Your task to perform on an android device: create a new album in the google photos Image 0: 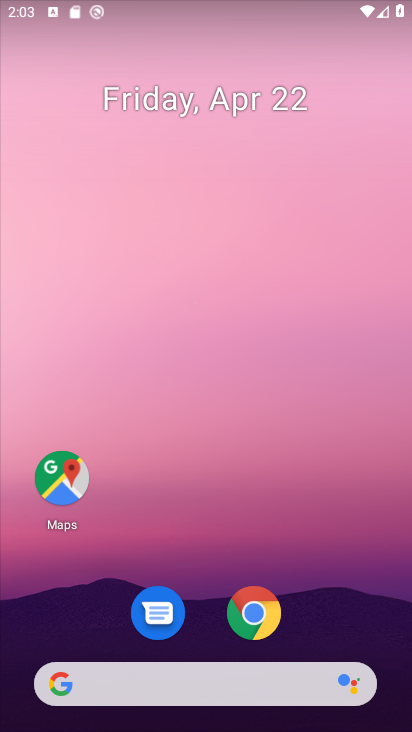
Step 0: drag from (210, 597) to (271, 65)
Your task to perform on an android device: create a new album in the google photos Image 1: 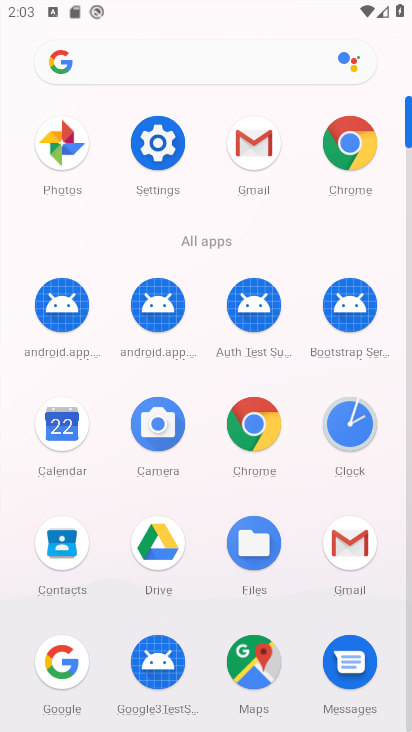
Step 1: drag from (255, 619) to (326, 137)
Your task to perform on an android device: create a new album in the google photos Image 2: 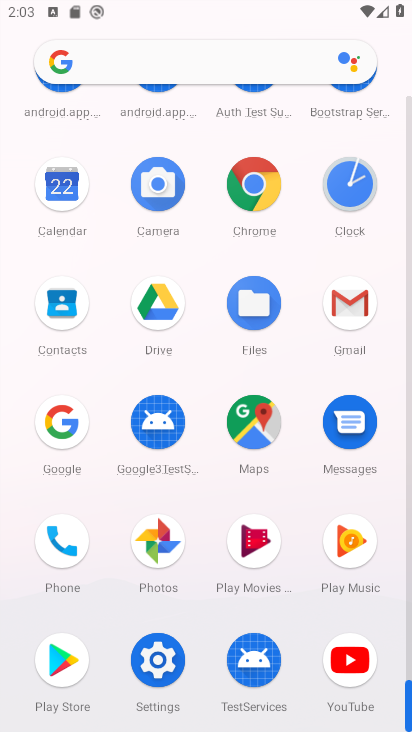
Step 2: click (161, 539)
Your task to perform on an android device: create a new album in the google photos Image 3: 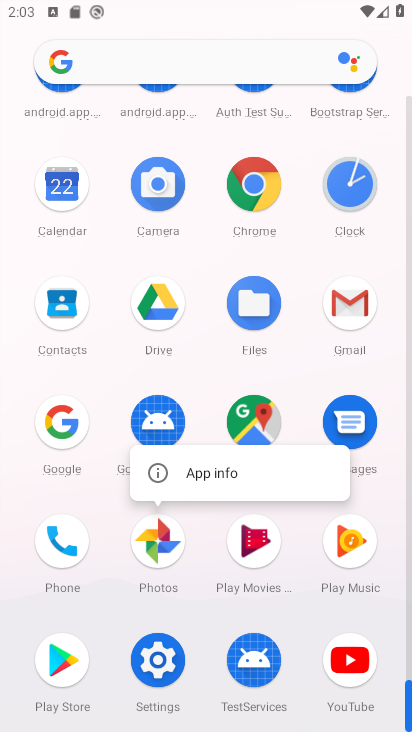
Step 3: click (161, 539)
Your task to perform on an android device: create a new album in the google photos Image 4: 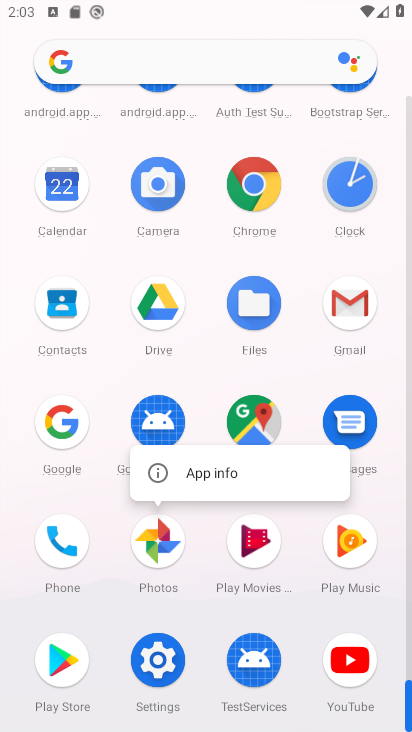
Step 4: click (161, 539)
Your task to perform on an android device: create a new album in the google photos Image 5: 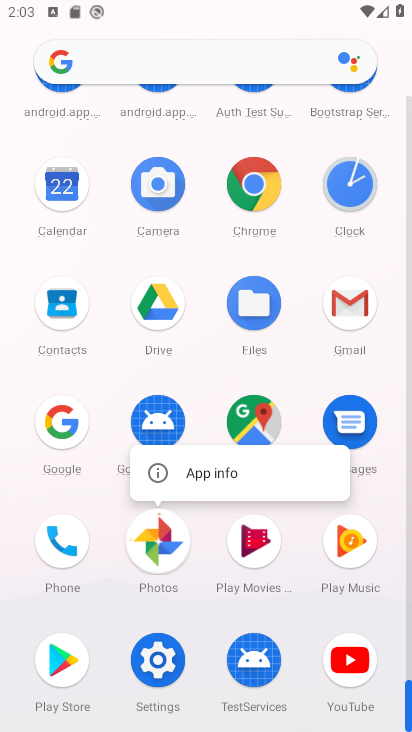
Step 5: click (161, 539)
Your task to perform on an android device: create a new album in the google photos Image 6: 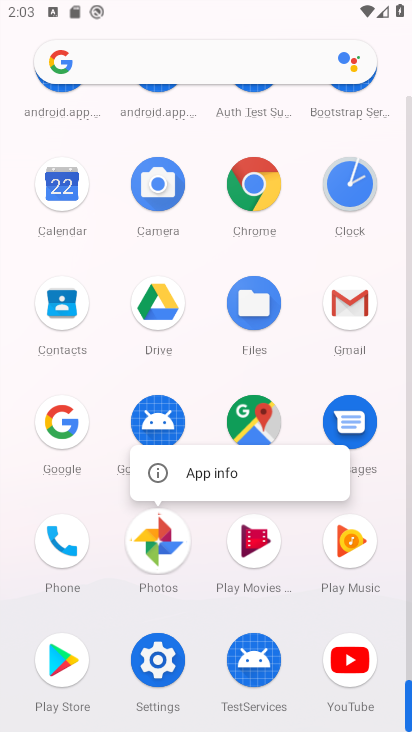
Step 6: click (161, 539)
Your task to perform on an android device: create a new album in the google photos Image 7: 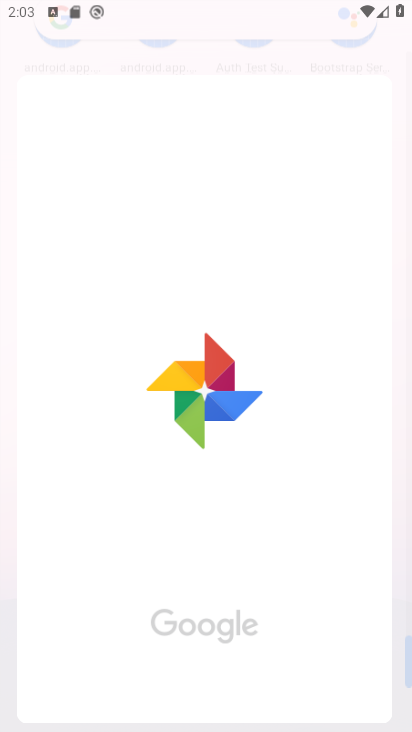
Step 7: click (156, 551)
Your task to perform on an android device: create a new album in the google photos Image 8: 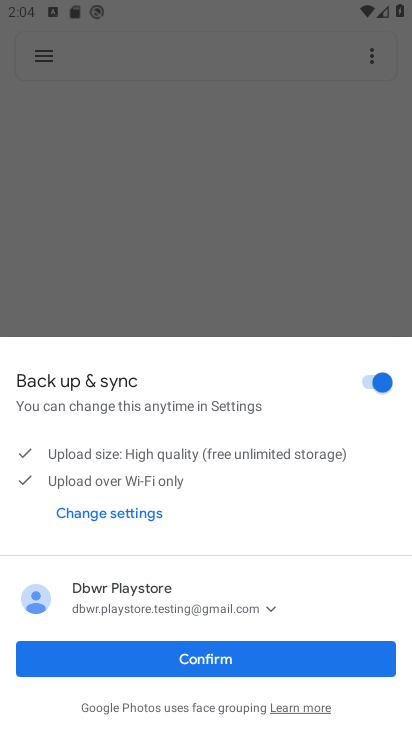
Step 8: click (182, 661)
Your task to perform on an android device: create a new album in the google photos Image 9: 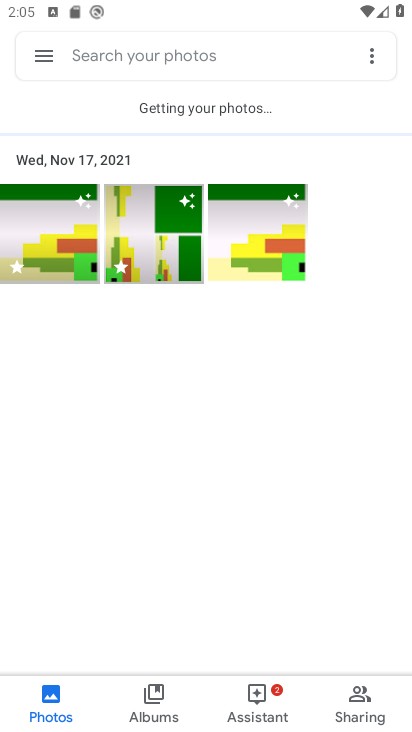
Step 9: click (269, 248)
Your task to perform on an android device: create a new album in the google photos Image 10: 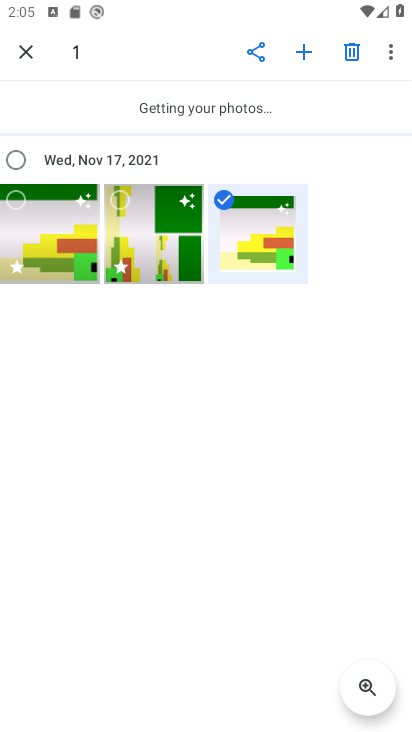
Step 10: click (302, 44)
Your task to perform on an android device: create a new album in the google photos Image 11: 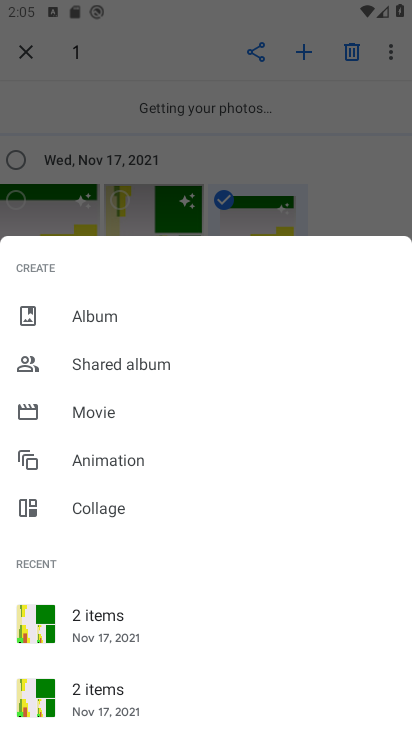
Step 11: click (130, 317)
Your task to perform on an android device: create a new album in the google photos Image 12: 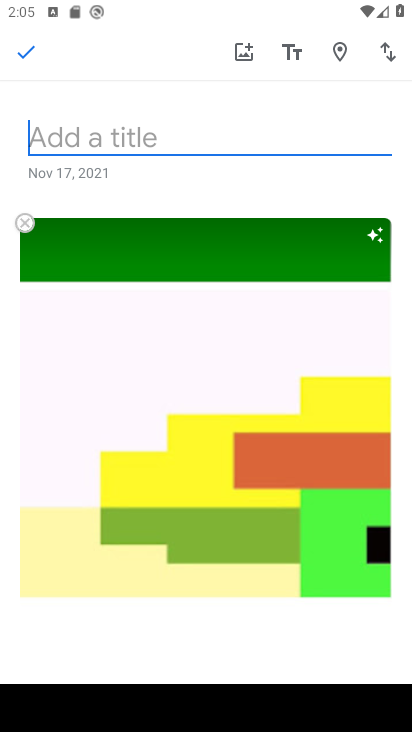
Step 12: type "ghjh"
Your task to perform on an android device: create a new album in the google photos Image 13: 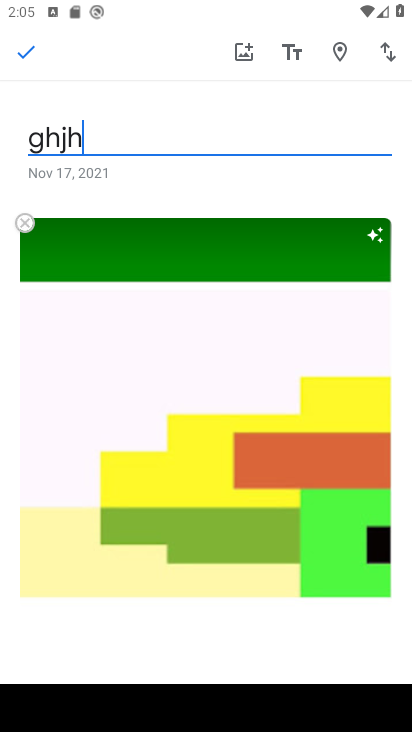
Step 13: click (40, 40)
Your task to perform on an android device: create a new album in the google photos Image 14: 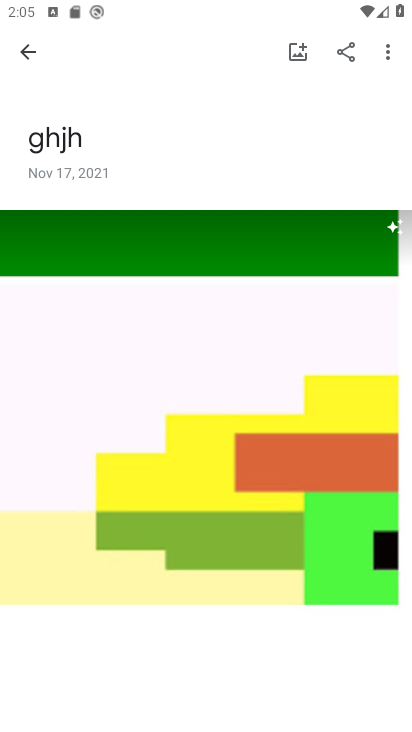
Step 14: task complete